Your task to perform on an android device: Add bose soundsport free to the cart on target, then select checkout. Image 0: 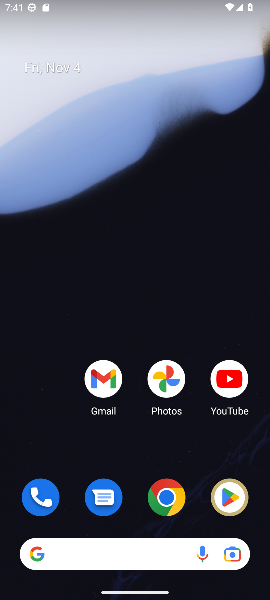
Step 0: click (162, 497)
Your task to perform on an android device: Add bose soundsport free to the cart on target, then select checkout. Image 1: 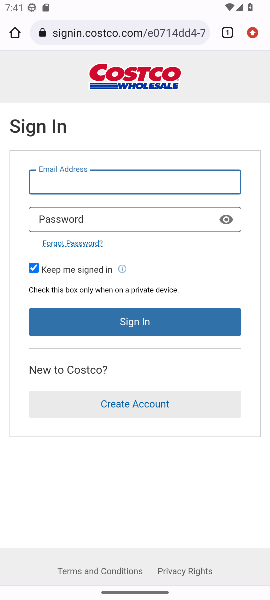
Step 1: click (143, 26)
Your task to perform on an android device: Add bose soundsport free to the cart on target, then select checkout. Image 2: 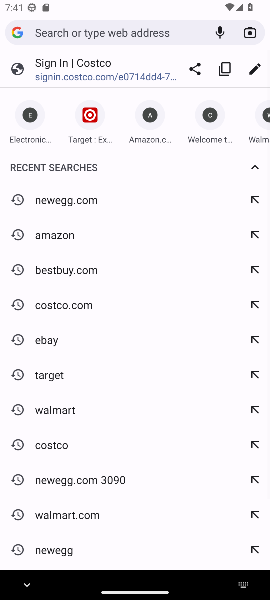
Step 2: click (61, 380)
Your task to perform on an android device: Add bose soundsport free to the cart on target, then select checkout. Image 3: 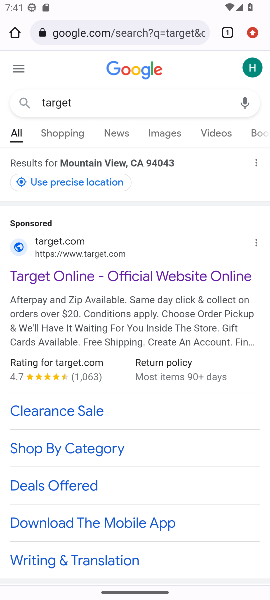
Step 3: drag from (82, 454) to (79, 232)
Your task to perform on an android device: Add bose soundsport free to the cart on target, then select checkout. Image 4: 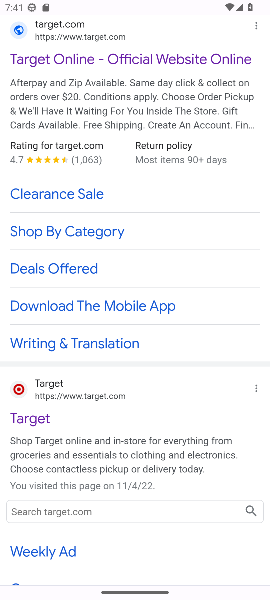
Step 4: click (40, 420)
Your task to perform on an android device: Add bose soundsport free to the cart on target, then select checkout. Image 5: 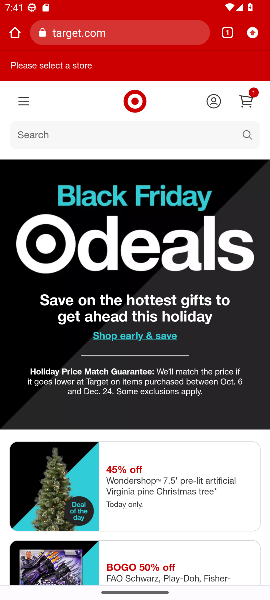
Step 5: click (238, 134)
Your task to perform on an android device: Add bose soundsport free to the cart on target, then select checkout. Image 6: 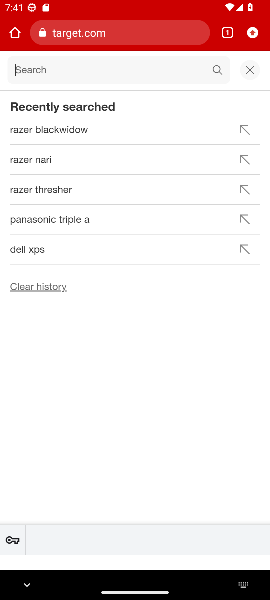
Step 6: type "bose soundsport free"
Your task to perform on an android device: Add bose soundsport free to the cart on target, then select checkout. Image 7: 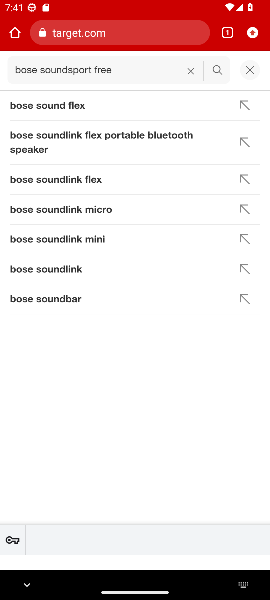
Step 7: click (212, 71)
Your task to perform on an android device: Add bose soundsport free to the cart on target, then select checkout. Image 8: 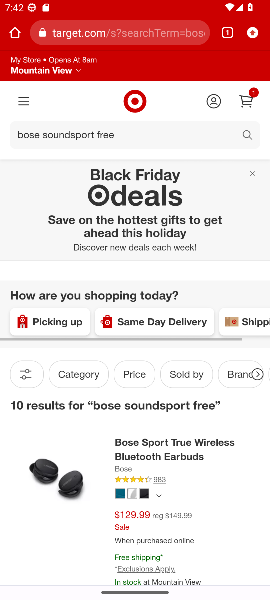
Step 8: task complete